Your task to perform on an android device: remove spam from my inbox in the gmail app Image 0: 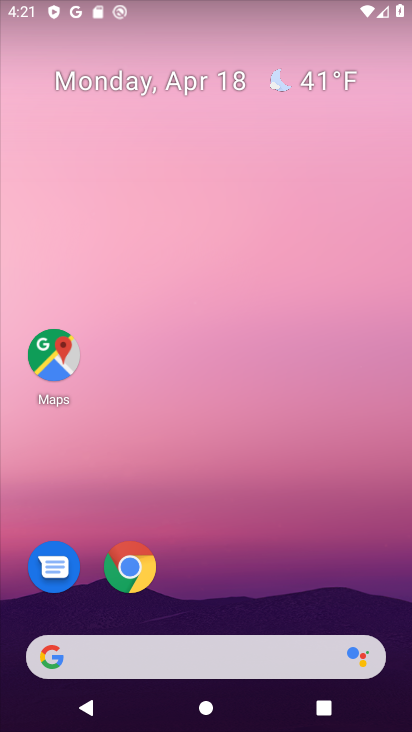
Step 0: drag from (243, 605) to (234, 92)
Your task to perform on an android device: remove spam from my inbox in the gmail app Image 1: 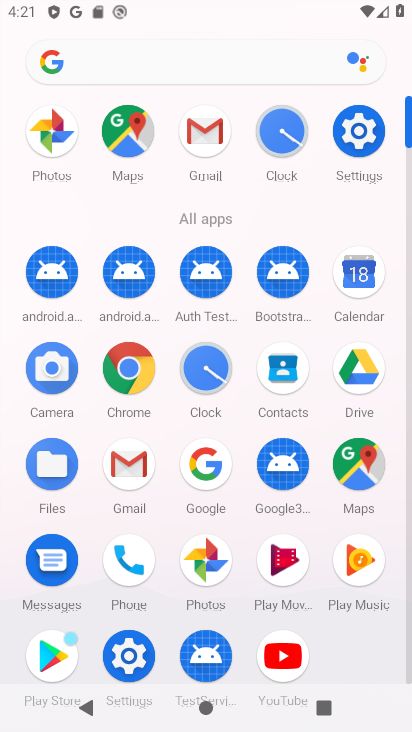
Step 1: click (214, 126)
Your task to perform on an android device: remove spam from my inbox in the gmail app Image 2: 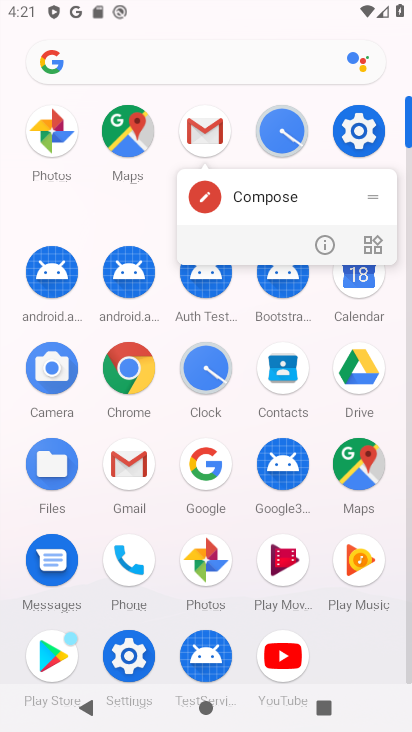
Step 2: click (214, 126)
Your task to perform on an android device: remove spam from my inbox in the gmail app Image 3: 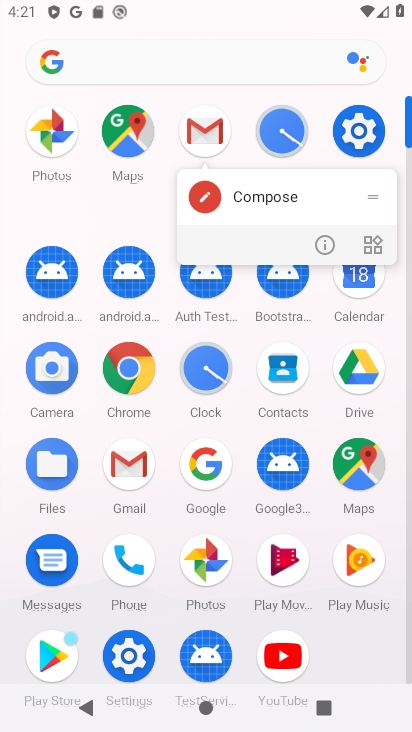
Step 3: click (199, 135)
Your task to perform on an android device: remove spam from my inbox in the gmail app Image 4: 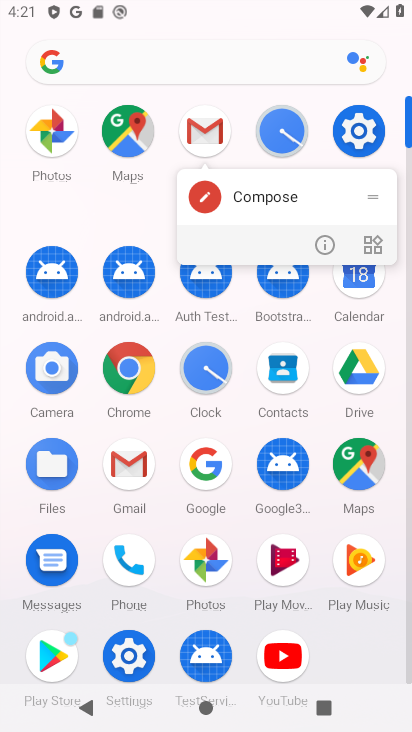
Step 4: click (216, 129)
Your task to perform on an android device: remove spam from my inbox in the gmail app Image 5: 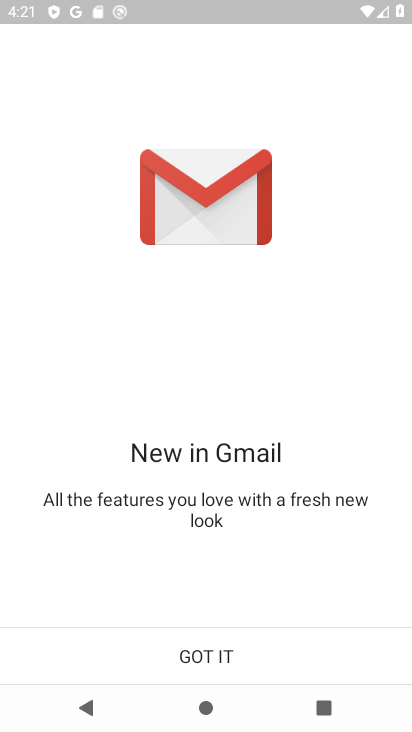
Step 5: click (201, 658)
Your task to perform on an android device: remove spam from my inbox in the gmail app Image 6: 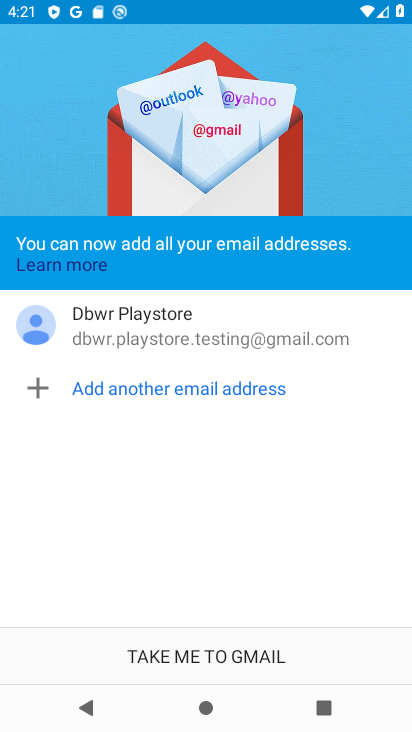
Step 6: click (201, 658)
Your task to perform on an android device: remove spam from my inbox in the gmail app Image 7: 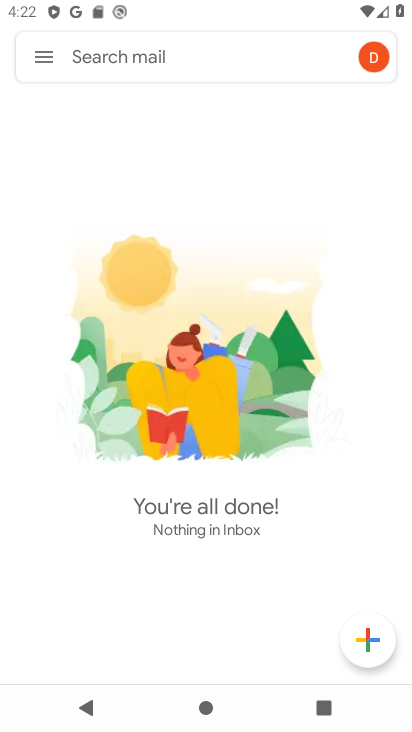
Step 7: click (46, 62)
Your task to perform on an android device: remove spam from my inbox in the gmail app Image 8: 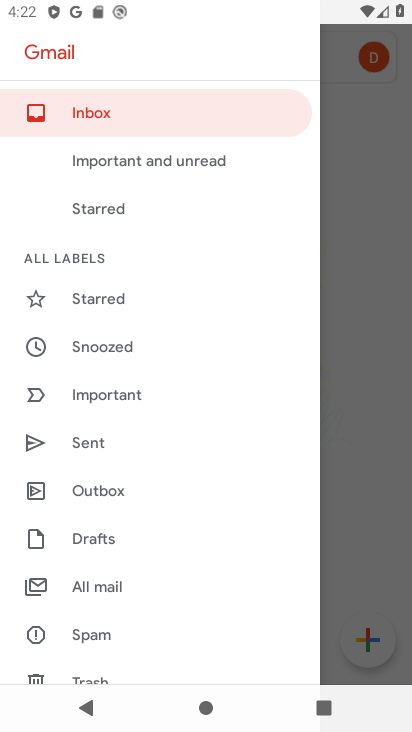
Step 8: drag from (107, 481) to (156, 365)
Your task to perform on an android device: remove spam from my inbox in the gmail app Image 9: 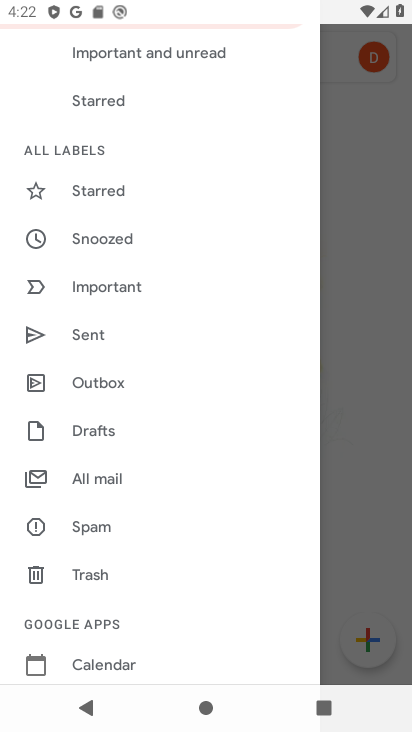
Step 9: click (113, 526)
Your task to perform on an android device: remove spam from my inbox in the gmail app Image 10: 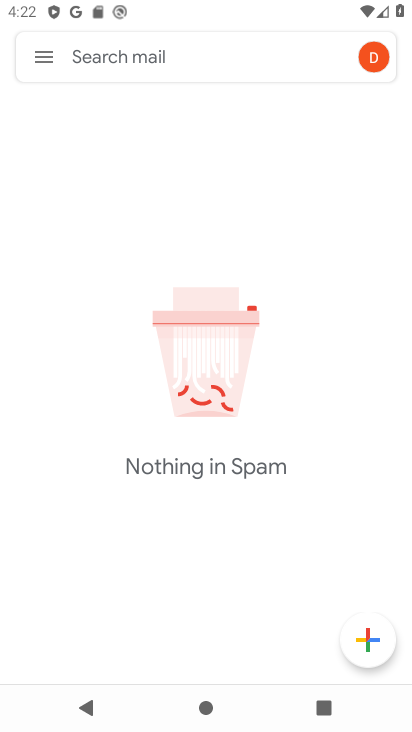
Step 10: task complete